Your task to perform on an android device: Search for pizza restaurants on Maps Image 0: 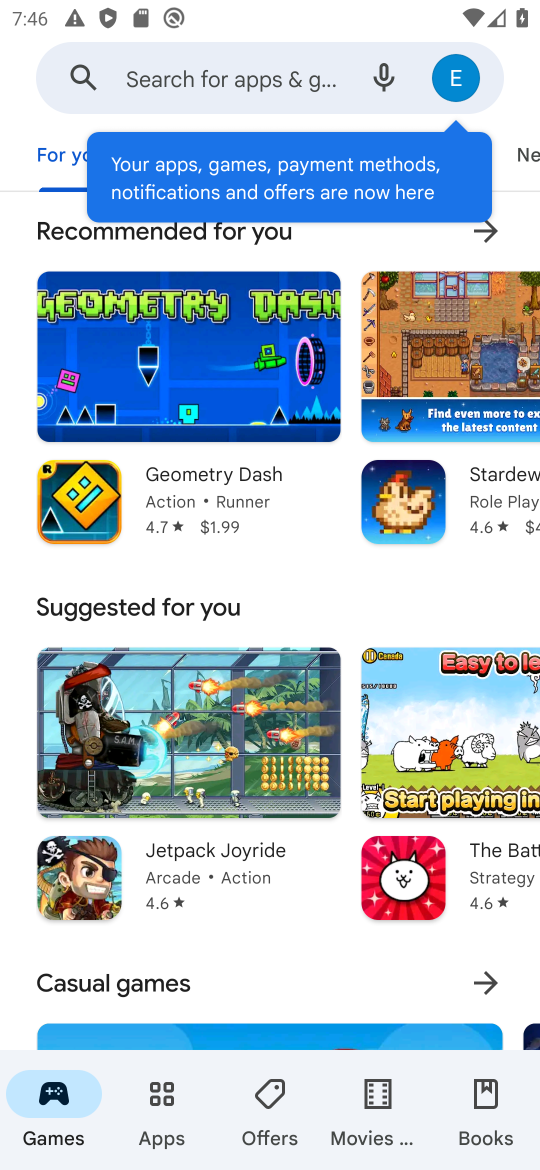
Step 0: press home button
Your task to perform on an android device: Search for pizza restaurants on Maps Image 1: 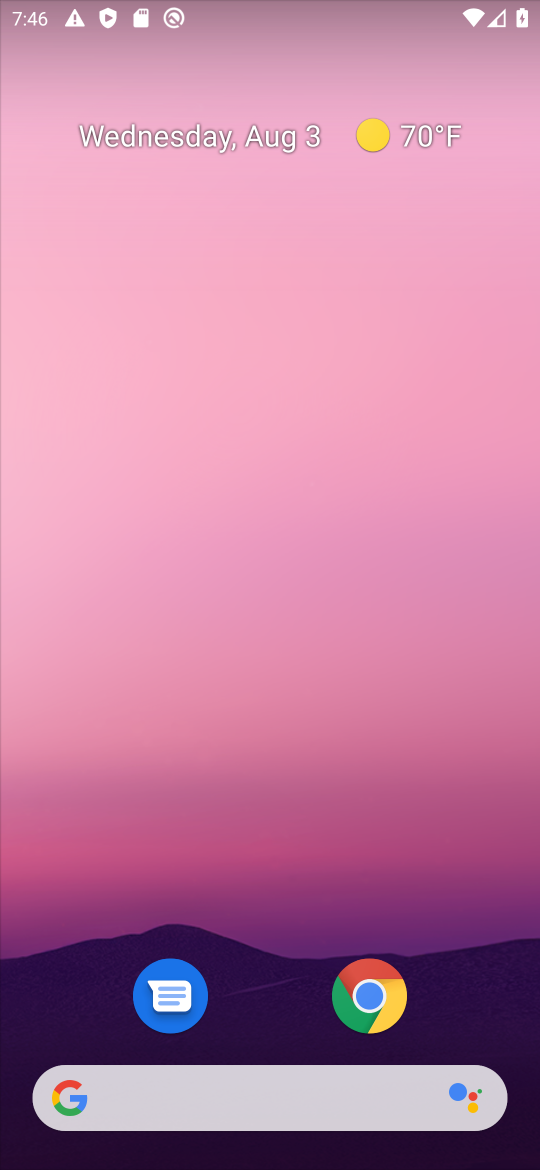
Step 1: drag from (284, 984) to (286, 0)
Your task to perform on an android device: Search for pizza restaurants on Maps Image 2: 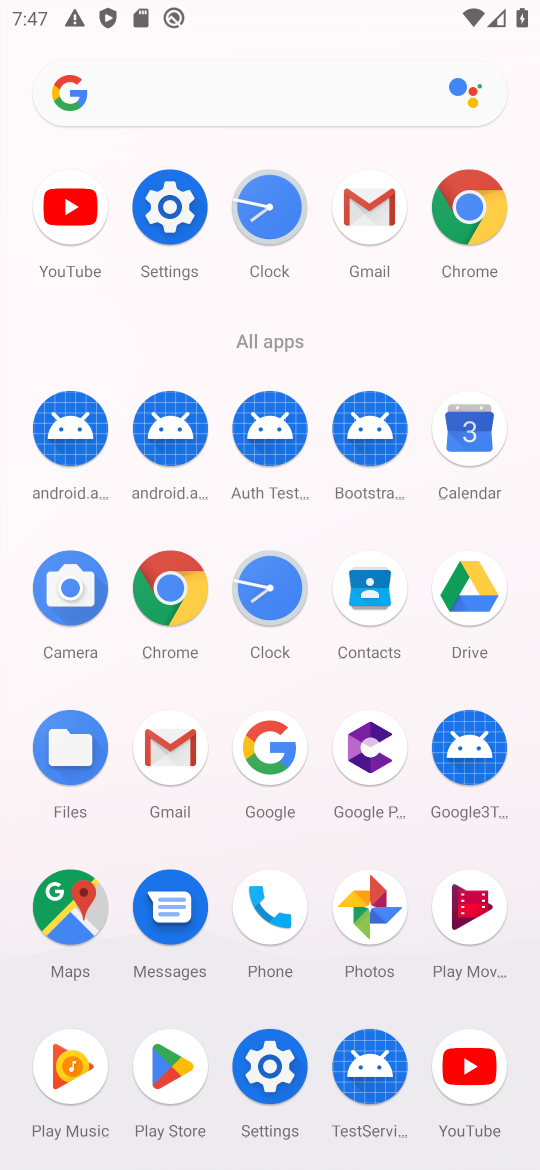
Step 2: click (89, 914)
Your task to perform on an android device: Search for pizza restaurants on Maps Image 3: 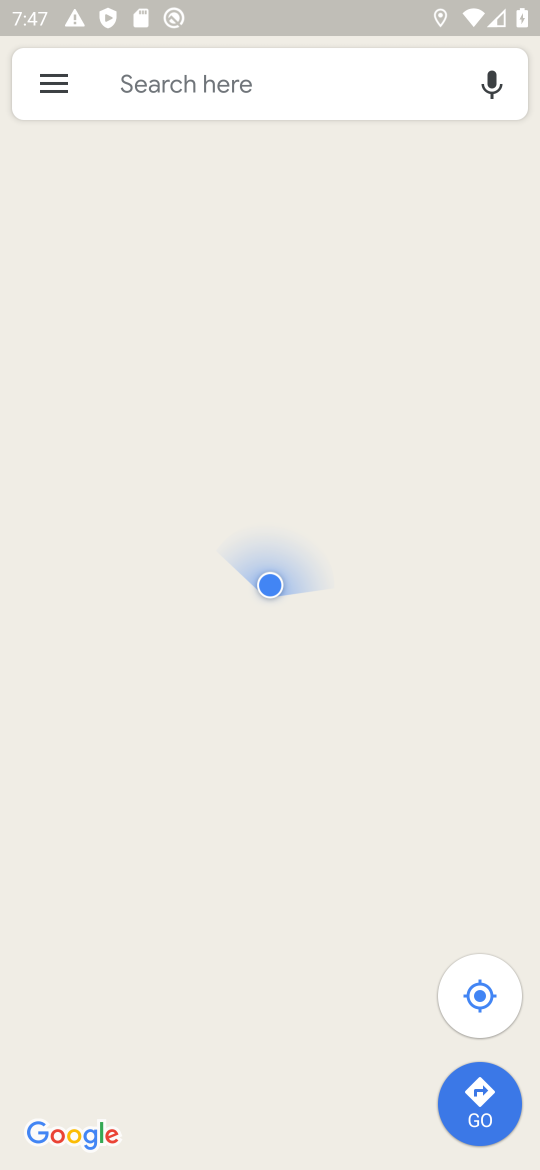
Step 3: click (282, 74)
Your task to perform on an android device: Search for pizza restaurants on Maps Image 4: 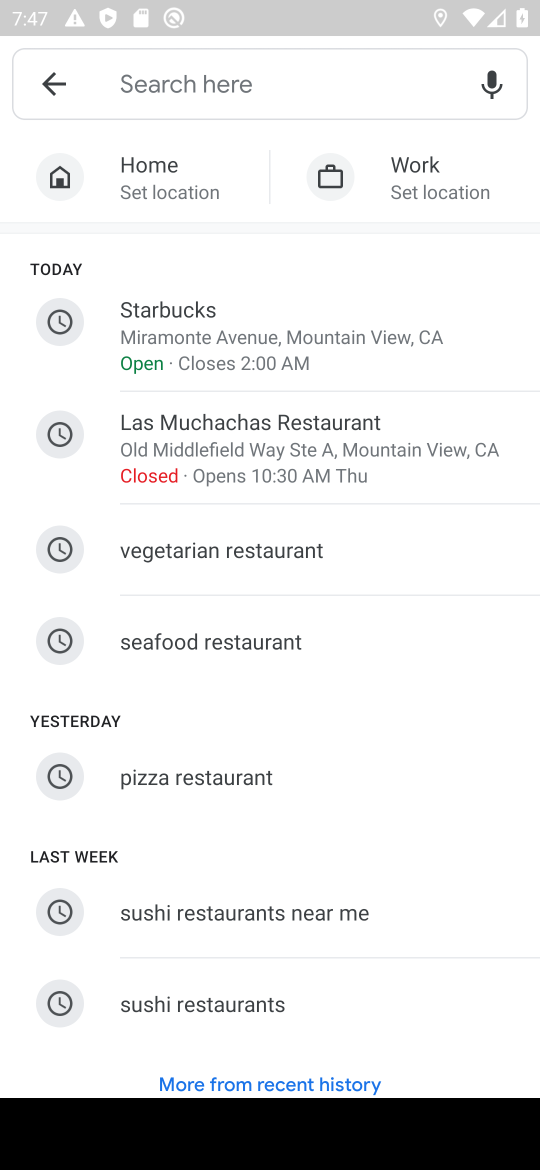
Step 4: click (239, 773)
Your task to perform on an android device: Search for pizza restaurants on Maps Image 5: 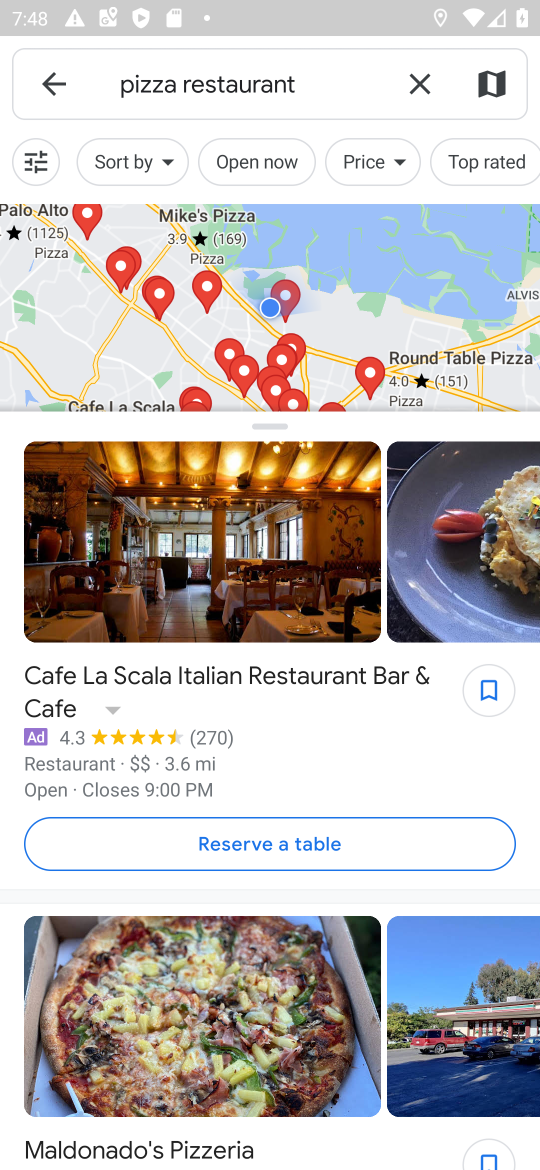
Step 5: task complete